Your task to perform on an android device: move a message to another label in the gmail app Image 0: 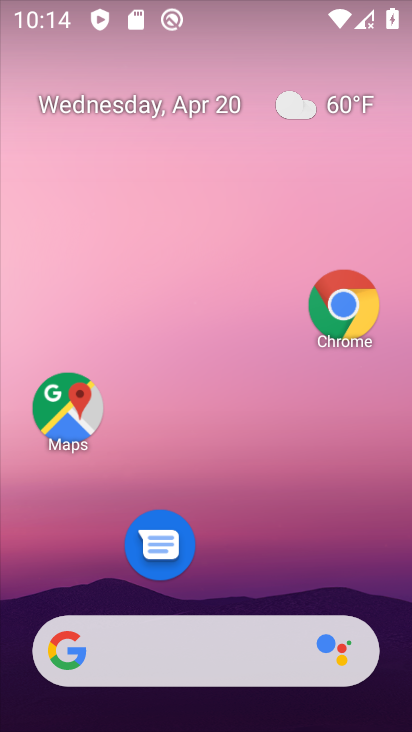
Step 0: drag from (263, 581) to (329, 134)
Your task to perform on an android device: move a message to another label in the gmail app Image 1: 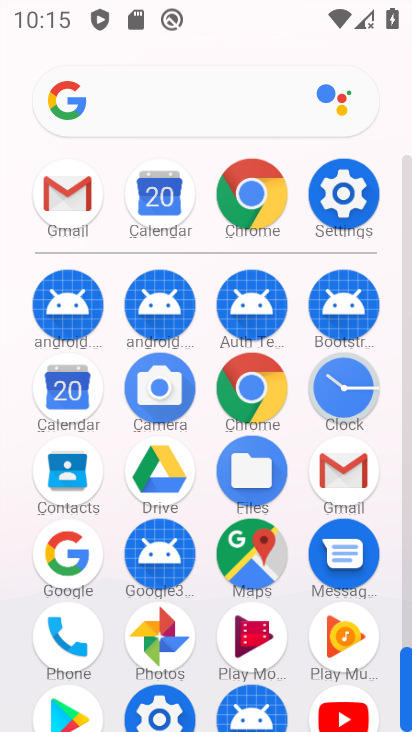
Step 1: click (338, 499)
Your task to perform on an android device: move a message to another label in the gmail app Image 2: 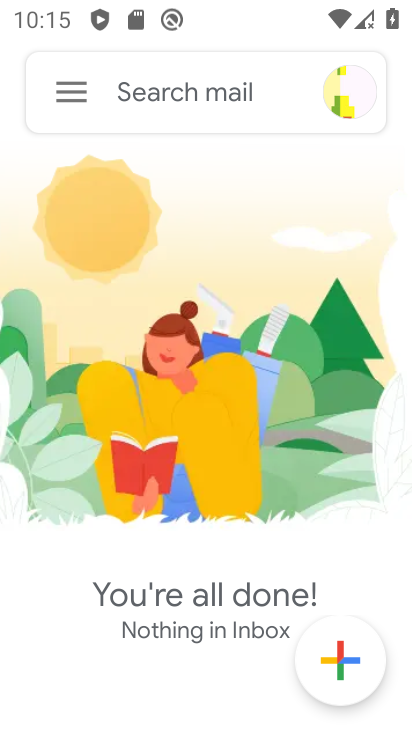
Step 2: click (74, 96)
Your task to perform on an android device: move a message to another label in the gmail app Image 3: 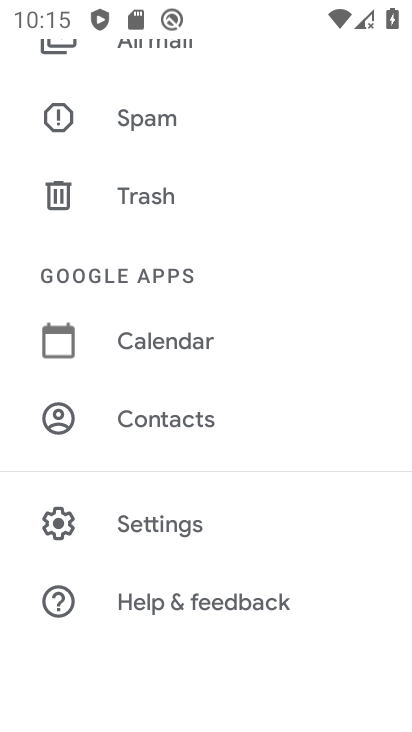
Step 3: click (145, 517)
Your task to perform on an android device: move a message to another label in the gmail app Image 4: 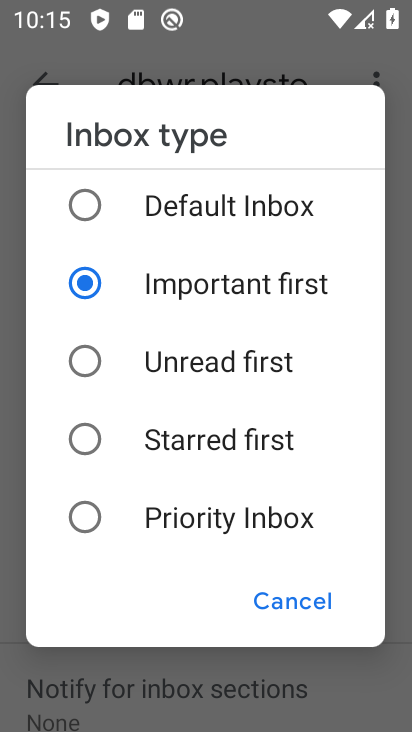
Step 4: click (225, 63)
Your task to perform on an android device: move a message to another label in the gmail app Image 5: 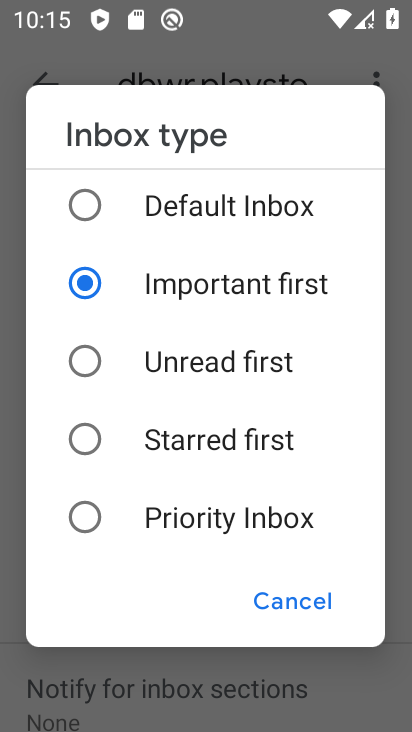
Step 5: click (319, 603)
Your task to perform on an android device: move a message to another label in the gmail app Image 6: 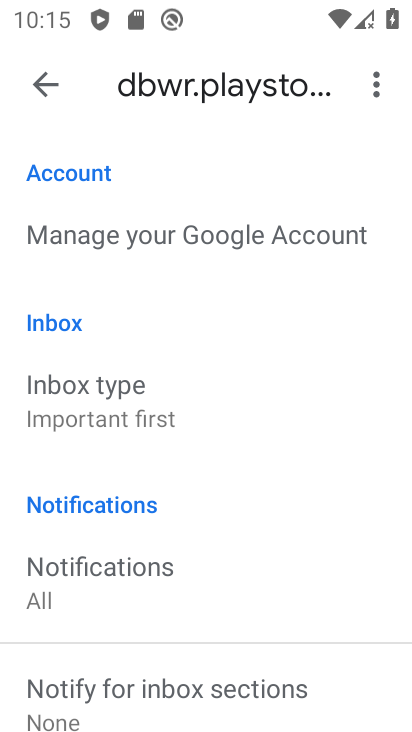
Step 6: click (45, 87)
Your task to perform on an android device: move a message to another label in the gmail app Image 7: 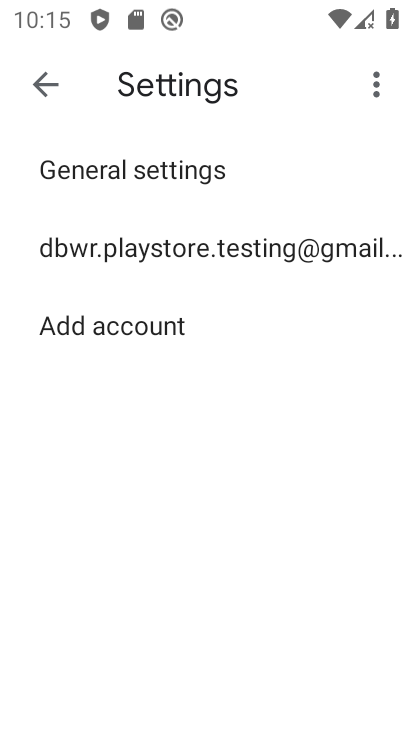
Step 7: click (51, 94)
Your task to perform on an android device: move a message to another label in the gmail app Image 8: 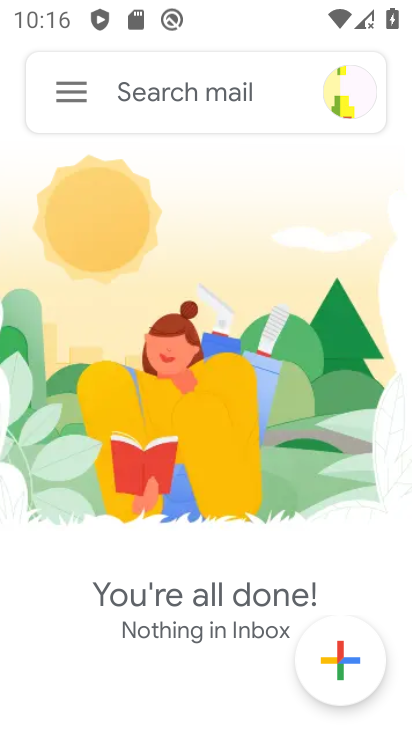
Step 8: click (76, 108)
Your task to perform on an android device: move a message to another label in the gmail app Image 9: 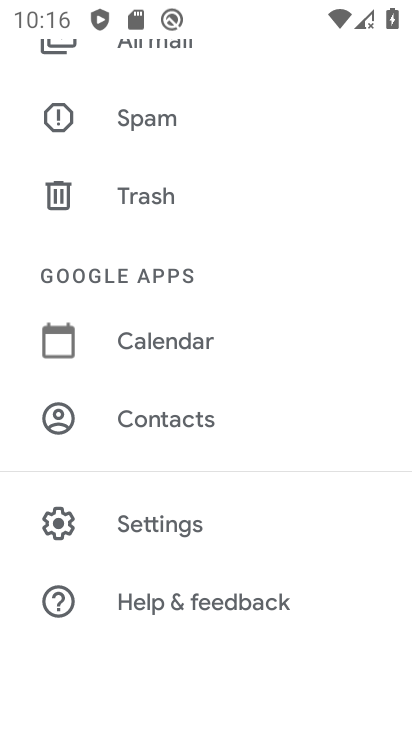
Step 9: drag from (167, 336) to (180, 593)
Your task to perform on an android device: move a message to another label in the gmail app Image 10: 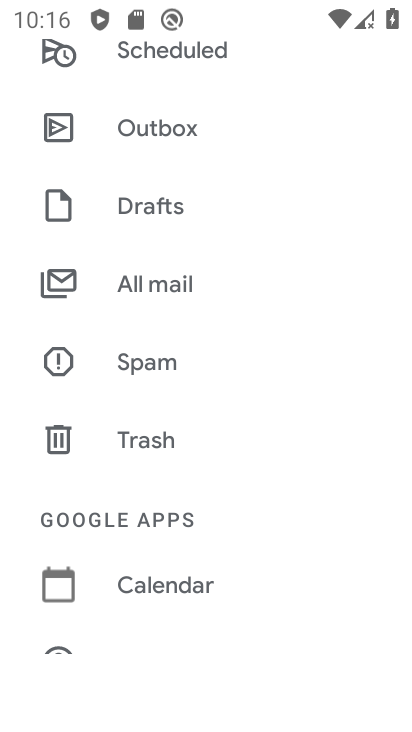
Step 10: click (175, 275)
Your task to perform on an android device: move a message to another label in the gmail app Image 11: 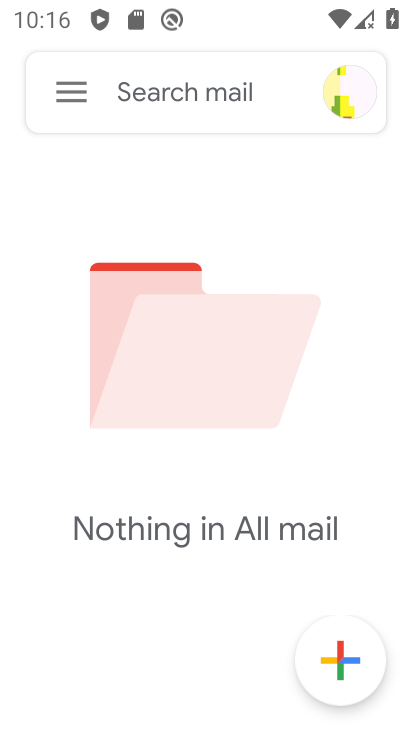
Step 11: task complete